Your task to perform on an android device: change notifications settings Image 0: 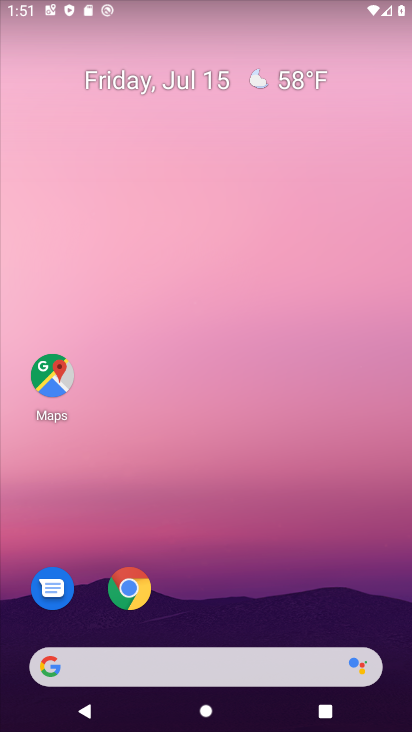
Step 0: drag from (276, 608) to (318, 5)
Your task to perform on an android device: change notifications settings Image 1: 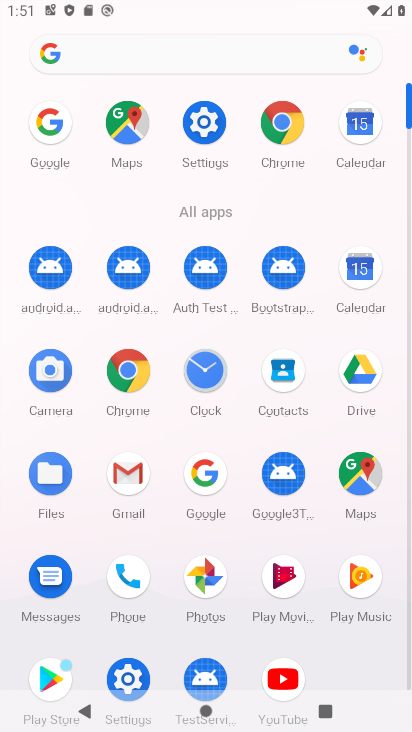
Step 1: click (211, 142)
Your task to perform on an android device: change notifications settings Image 2: 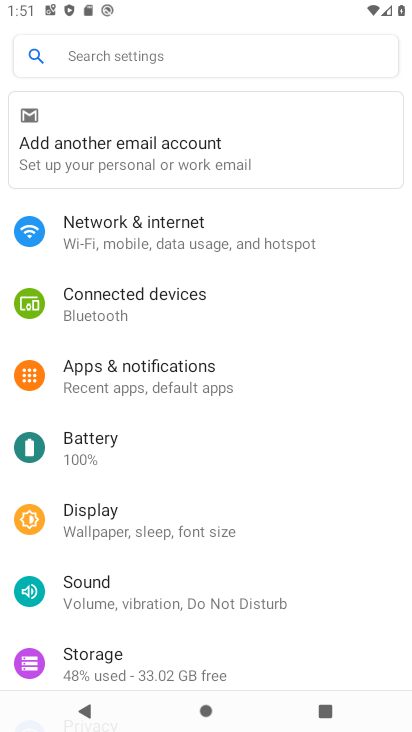
Step 2: click (234, 369)
Your task to perform on an android device: change notifications settings Image 3: 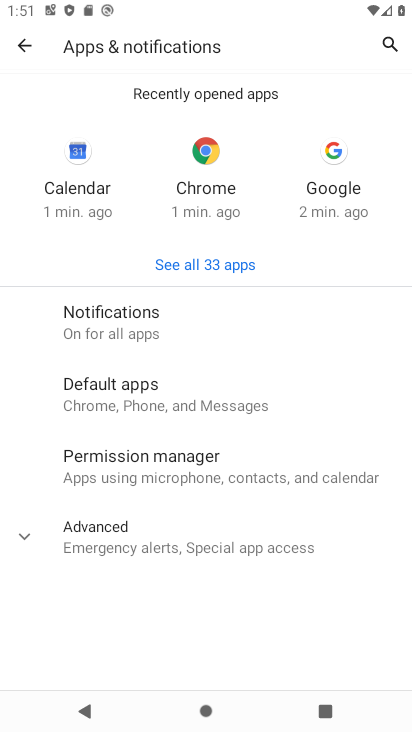
Step 3: click (106, 326)
Your task to perform on an android device: change notifications settings Image 4: 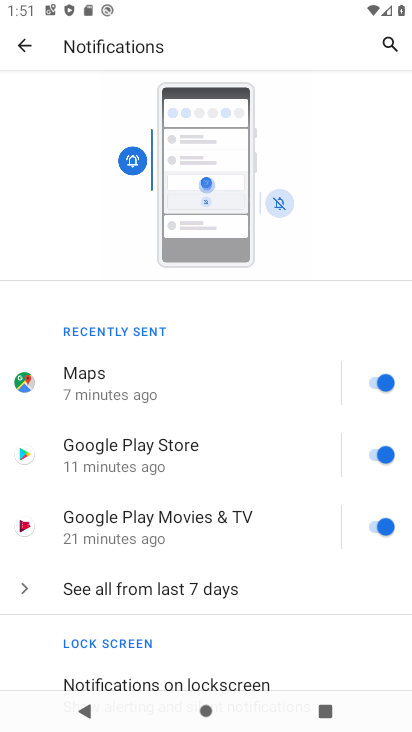
Step 4: click (277, 572)
Your task to perform on an android device: change notifications settings Image 5: 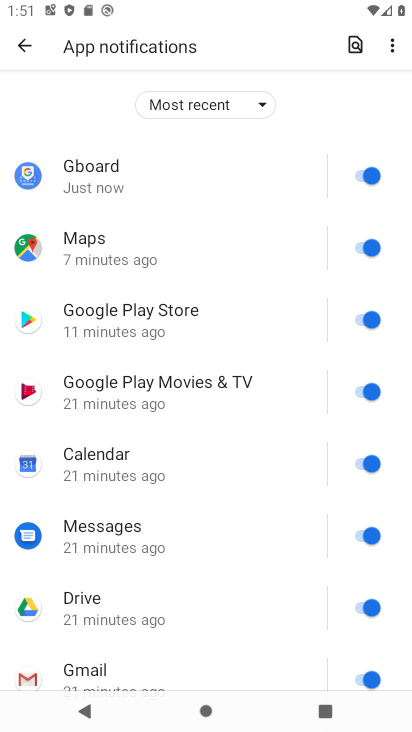
Step 5: click (371, 182)
Your task to perform on an android device: change notifications settings Image 6: 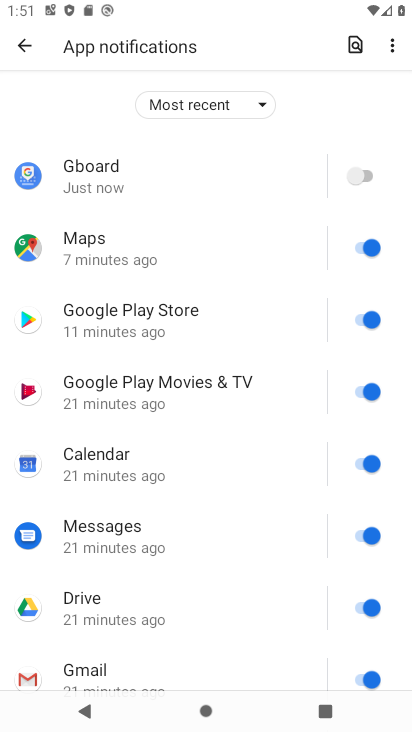
Step 6: click (371, 236)
Your task to perform on an android device: change notifications settings Image 7: 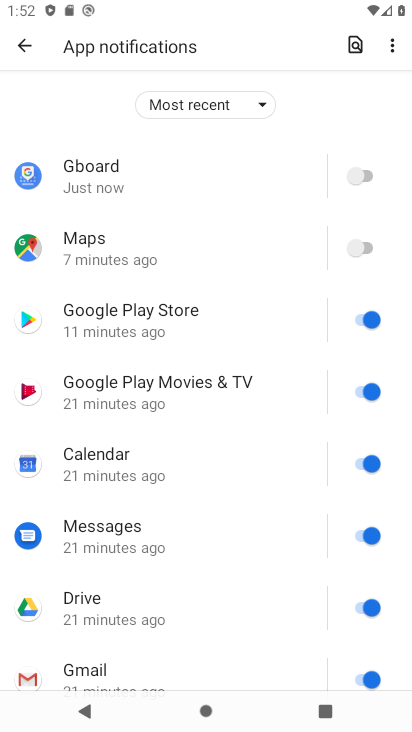
Step 7: click (364, 318)
Your task to perform on an android device: change notifications settings Image 8: 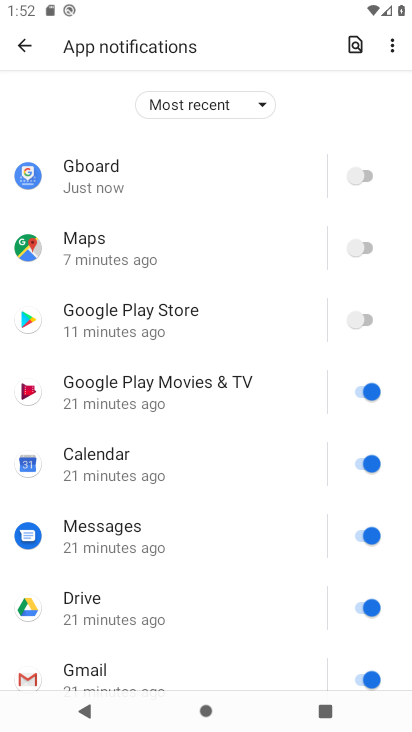
Step 8: click (366, 396)
Your task to perform on an android device: change notifications settings Image 9: 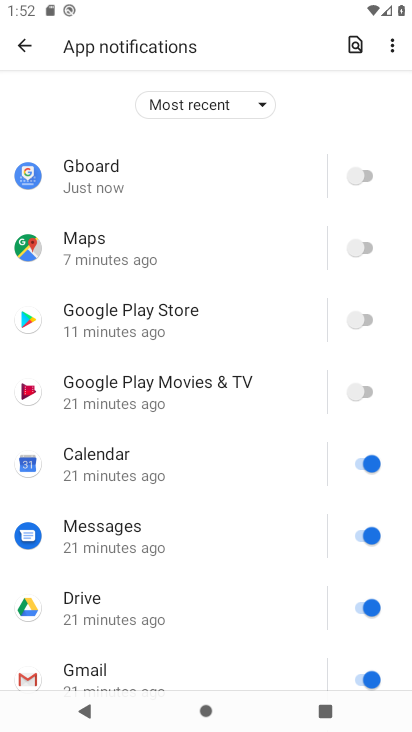
Step 9: click (365, 463)
Your task to perform on an android device: change notifications settings Image 10: 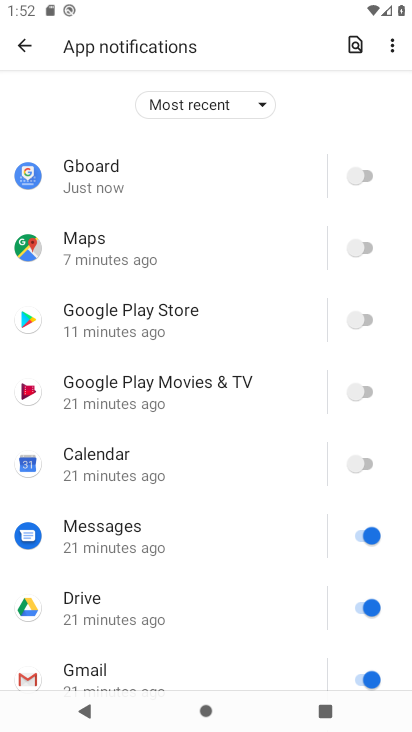
Step 10: click (358, 532)
Your task to perform on an android device: change notifications settings Image 11: 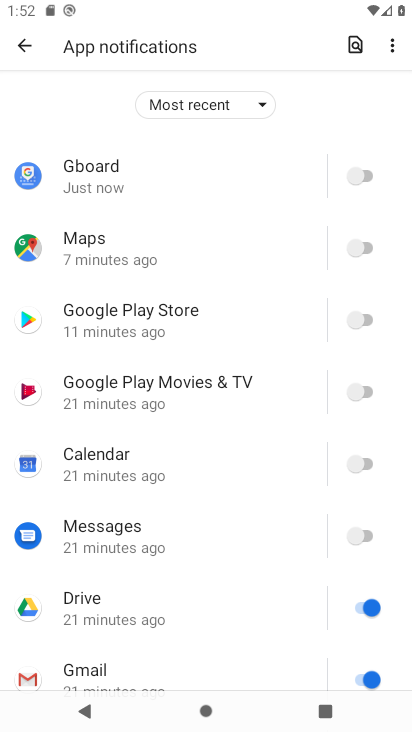
Step 11: click (363, 609)
Your task to perform on an android device: change notifications settings Image 12: 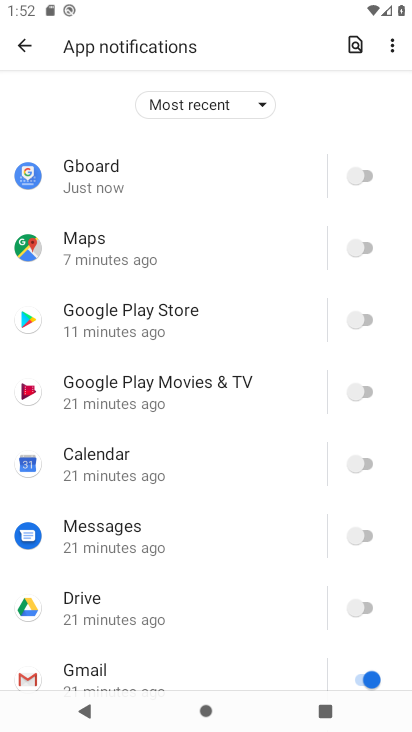
Step 12: click (369, 675)
Your task to perform on an android device: change notifications settings Image 13: 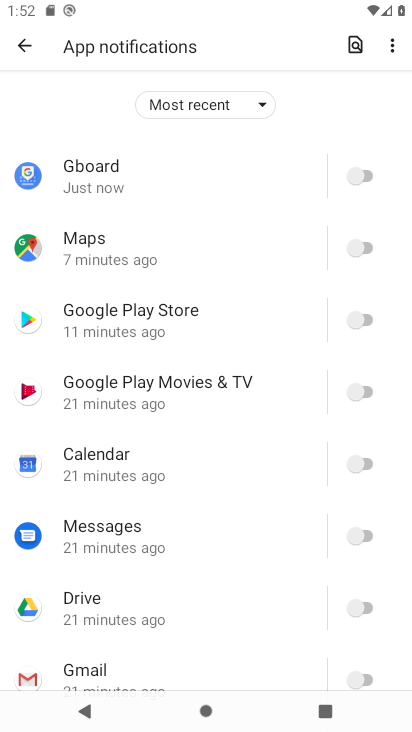
Step 13: drag from (285, 646) to (284, 347)
Your task to perform on an android device: change notifications settings Image 14: 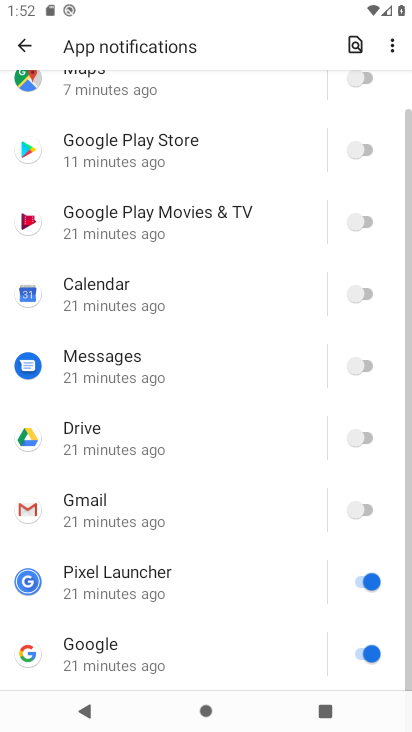
Step 14: click (361, 581)
Your task to perform on an android device: change notifications settings Image 15: 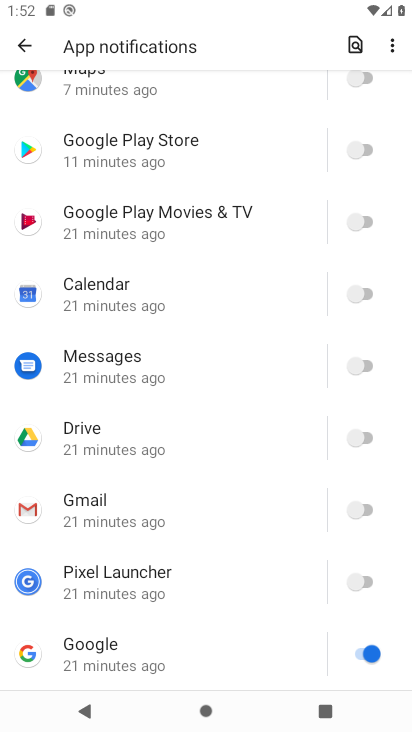
Step 15: click (375, 648)
Your task to perform on an android device: change notifications settings Image 16: 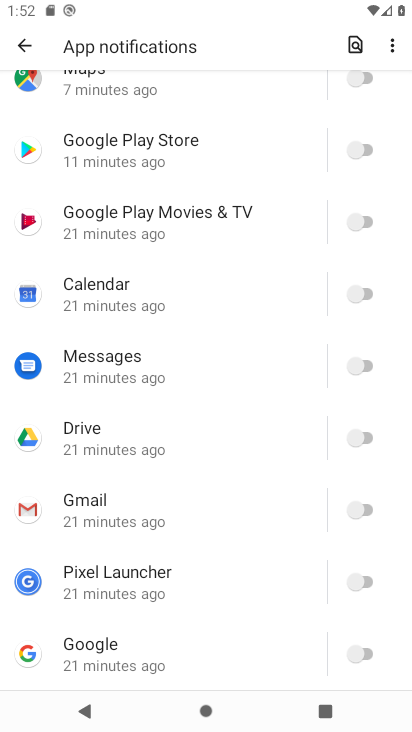
Step 16: click (21, 49)
Your task to perform on an android device: change notifications settings Image 17: 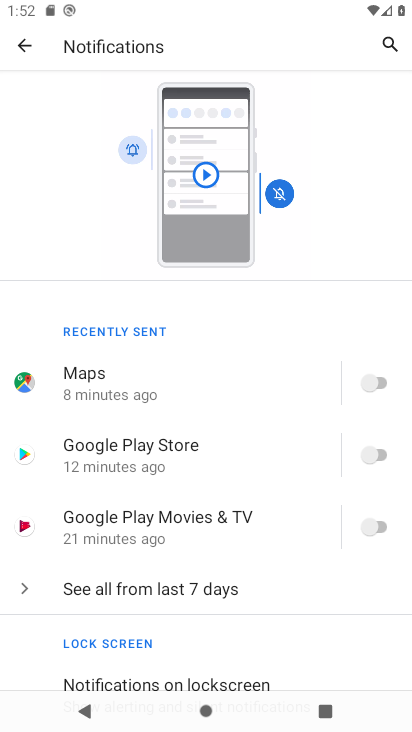
Step 17: drag from (214, 620) to (203, 332)
Your task to perform on an android device: change notifications settings Image 18: 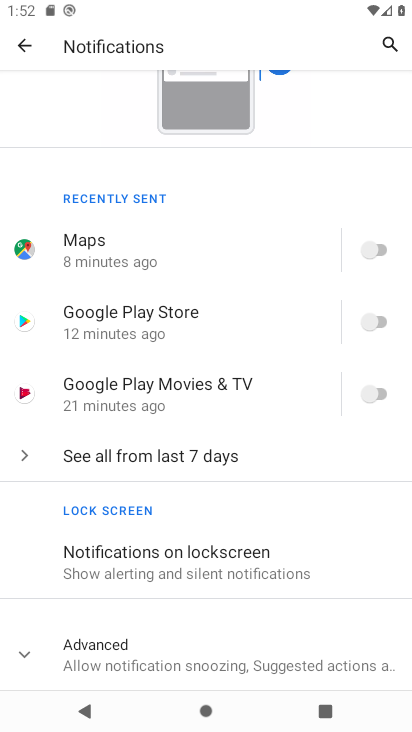
Step 18: click (172, 560)
Your task to perform on an android device: change notifications settings Image 19: 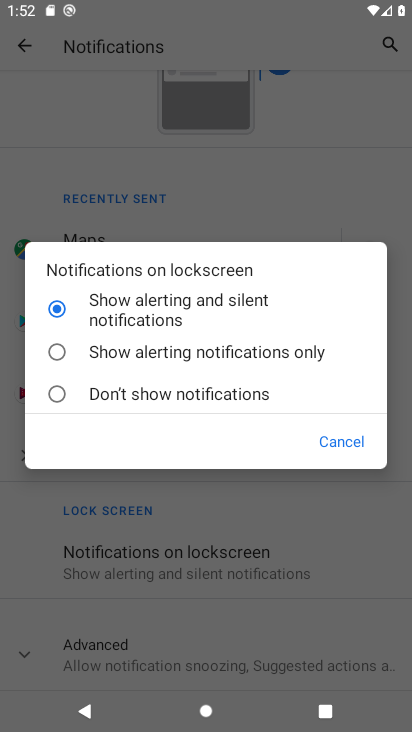
Step 19: click (205, 356)
Your task to perform on an android device: change notifications settings Image 20: 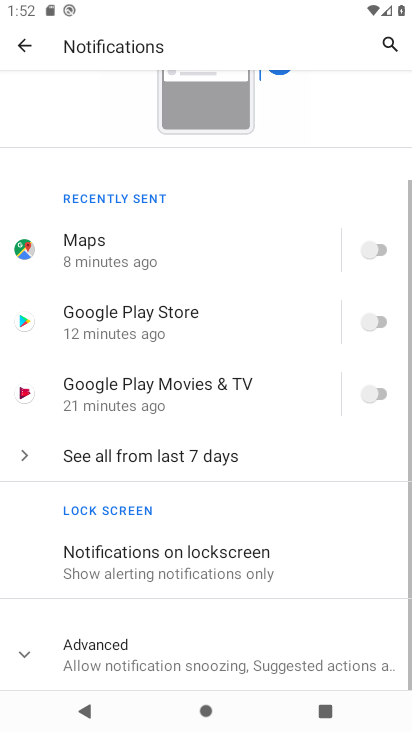
Step 20: drag from (242, 536) to (242, 362)
Your task to perform on an android device: change notifications settings Image 21: 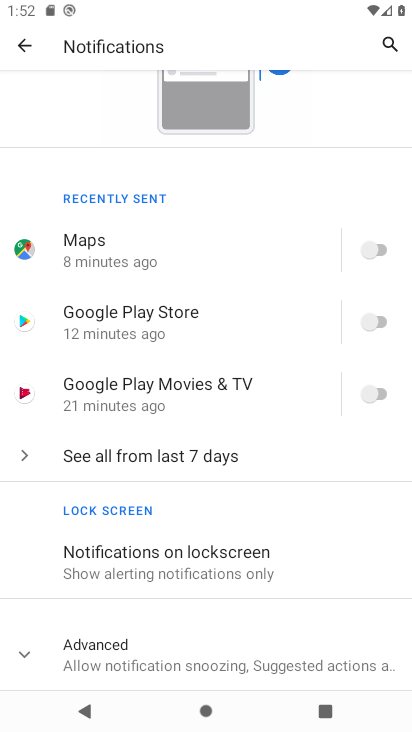
Step 21: click (206, 643)
Your task to perform on an android device: change notifications settings Image 22: 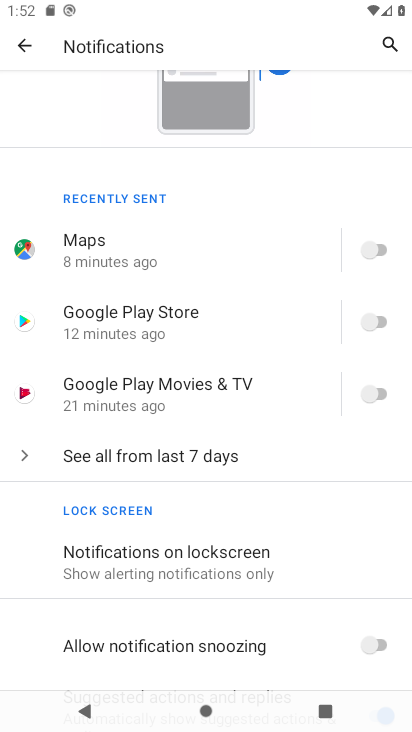
Step 22: drag from (204, 659) to (247, 356)
Your task to perform on an android device: change notifications settings Image 23: 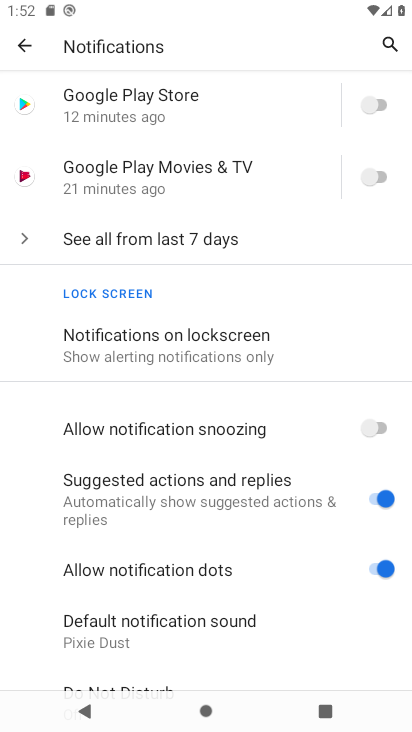
Step 23: click (362, 432)
Your task to perform on an android device: change notifications settings Image 24: 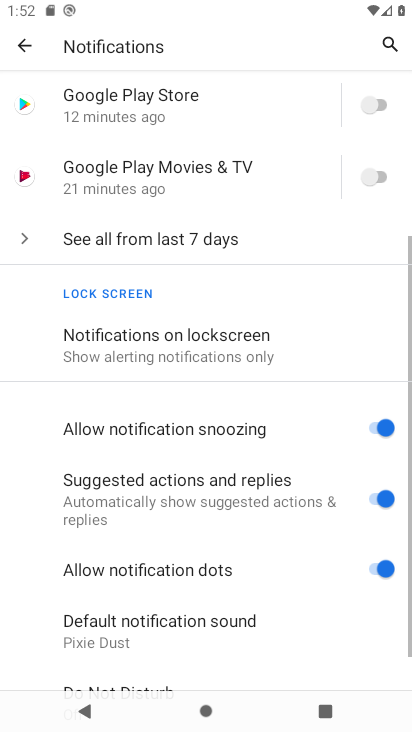
Step 24: click (384, 494)
Your task to perform on an android device: change notifications settings Image 25: 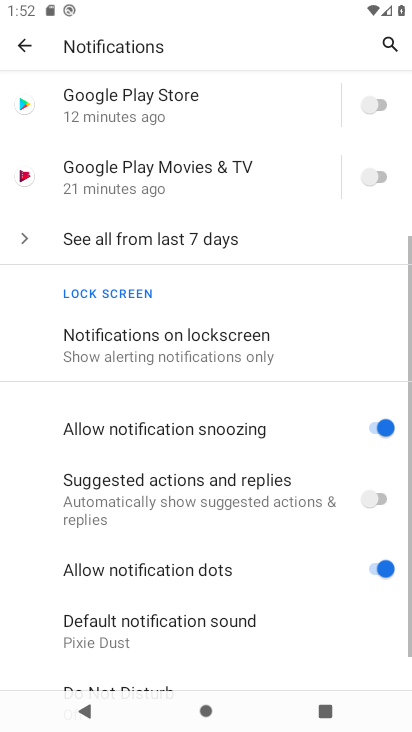
Step 25: click (385, 574)
Your task to perform on an android device: change notifications settings Image 26: 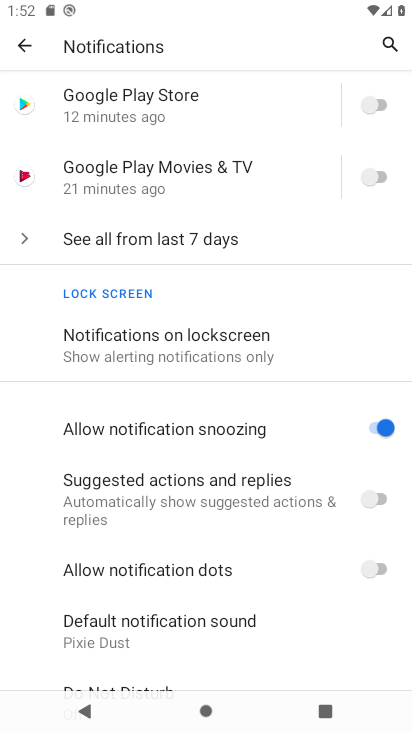
Step 26: task complete